Your task to perform on an android device: Open my contact list Image 0: 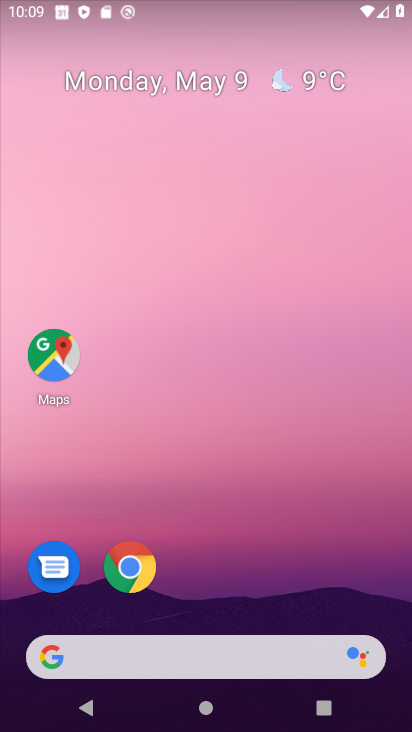
Step 0: drag from (201, 556) to (206, 605)
Your task to perform on an android device: Open my contact list Image 1: 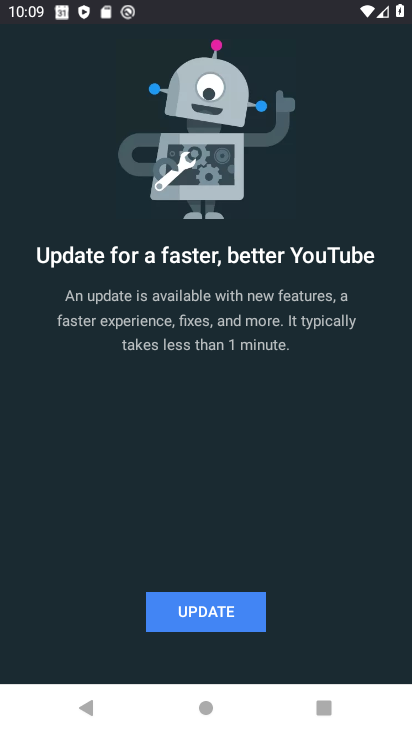
Step 1: press home button
Your task to perform on an android device: Open my contact list Image 2: 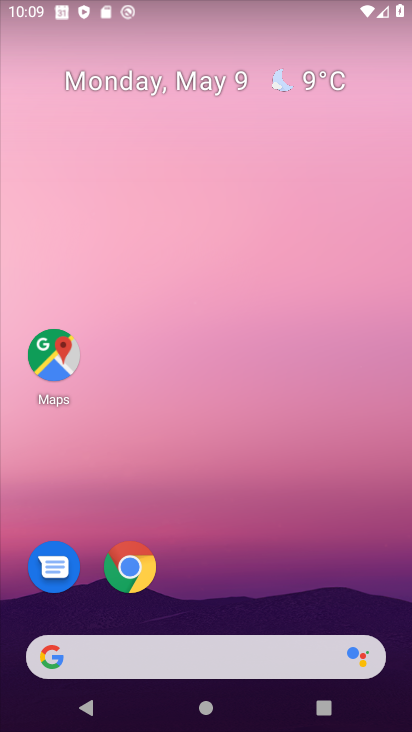
Step 2: drag from (265, 5) to (242, 547)
Your task to perform on an android device: Open my contact list Image 3: 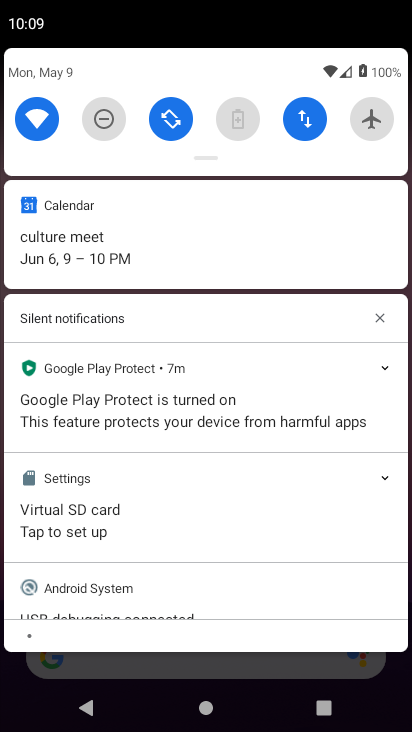
Step 3: press back button
Your task to perform on an android device: Open my contact list Image 4: 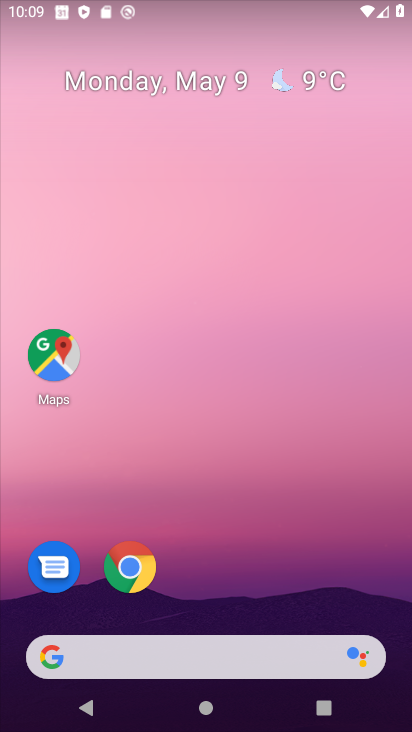
Step 4: drag from (225, 606) to (228, 68)
Your task to perform on an android device: Open my contact list Image 5: 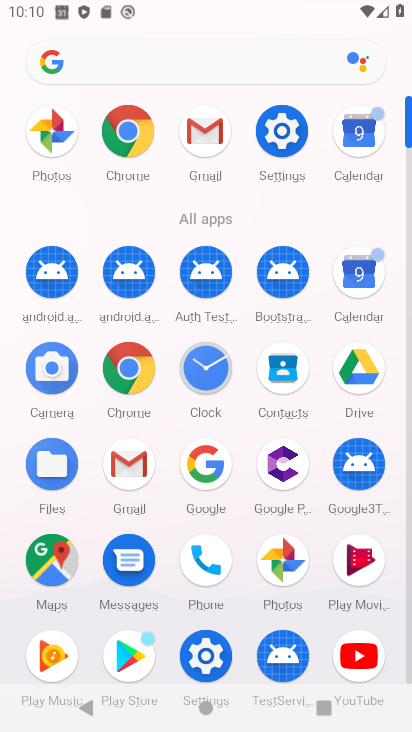
Step 5: click (282, 362)
Your task to perform on an android device: Open my contact list Image 6: 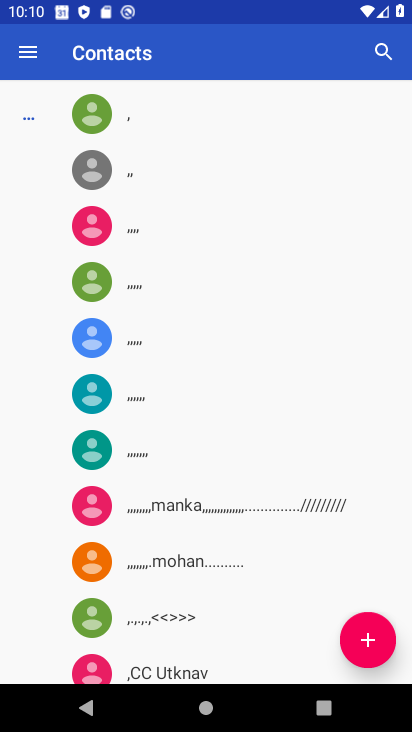
Step 6: task complete